Your task to perform on an android device: turn off translation in the chrome app Image 0: 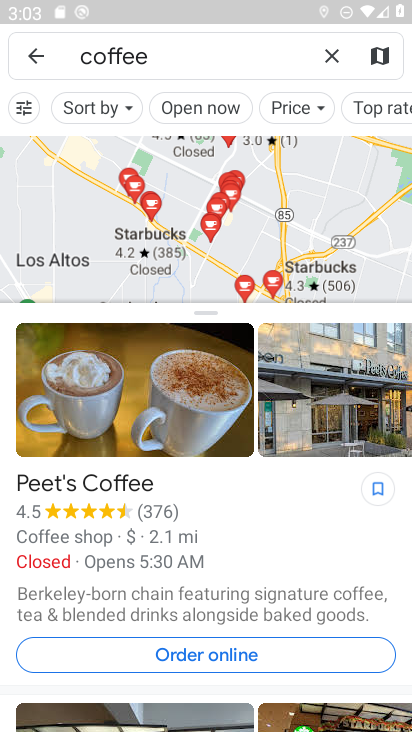
Step 0: task complete